Your task to perform on an android device: turn on wifi Image 0: 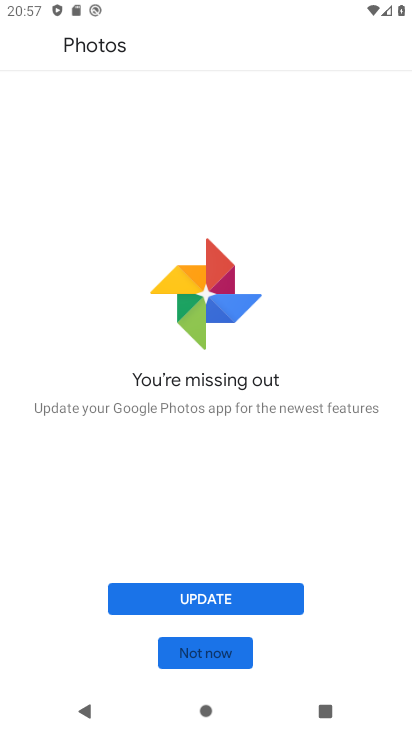
Step 0: press home button
Your task to perform on an android device: turn on wifi Image 1: 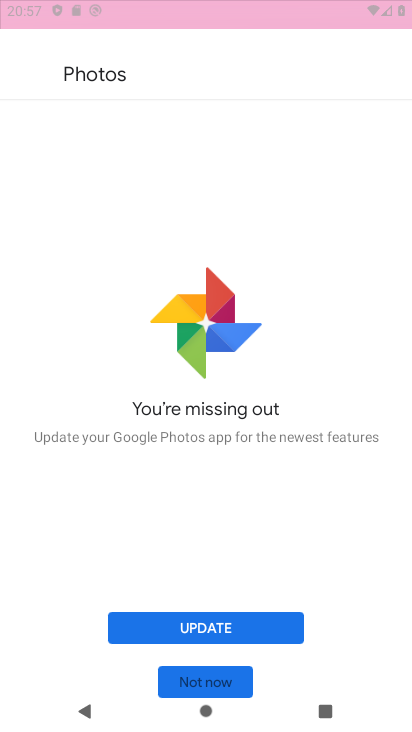
Step 1: task complete